Your task to perform on an android device: show emergency info Image 0: 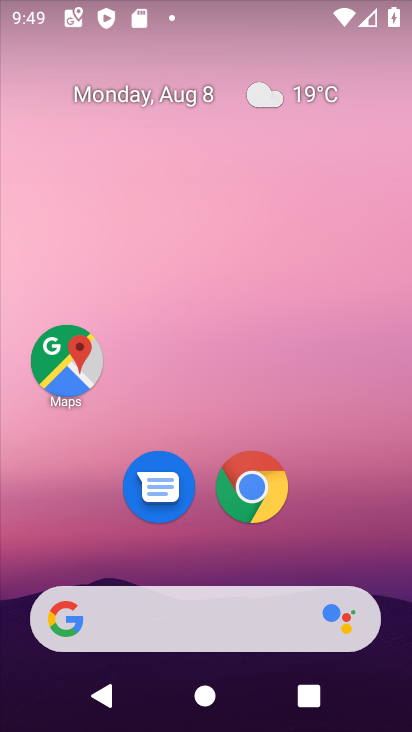
Step 0: drag from (205, 559) to (210, 218)
Your task to perform on an android device: show emergency info Image 1: 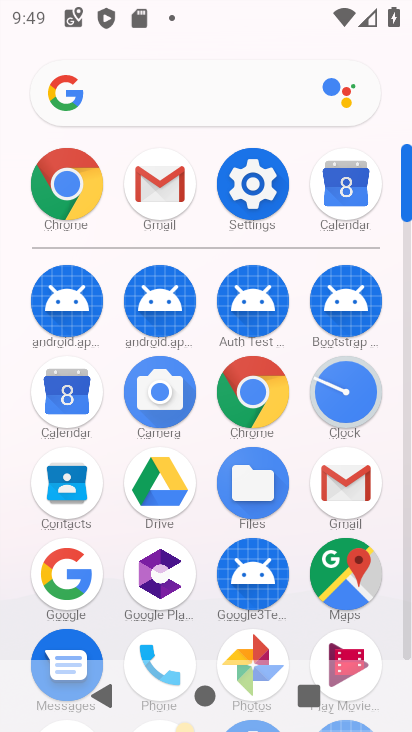
Step 1: click (260, 177)
Your task to perform on an android device: show emergency info Image 2: 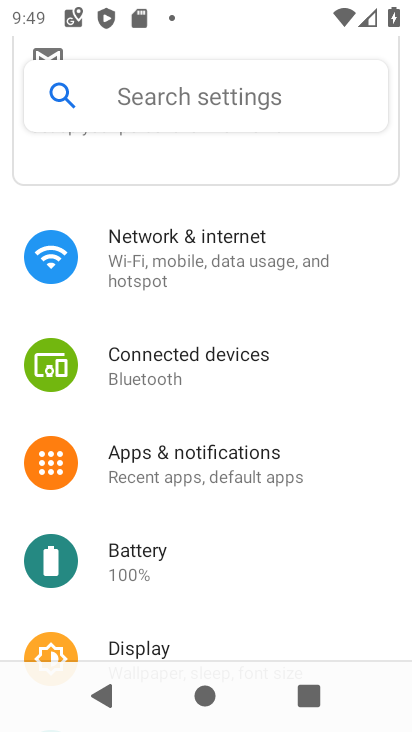
Step 2: drag from (150, 593) to (150, 314)
Your task to perform on an android device: show emergency info Image 3: 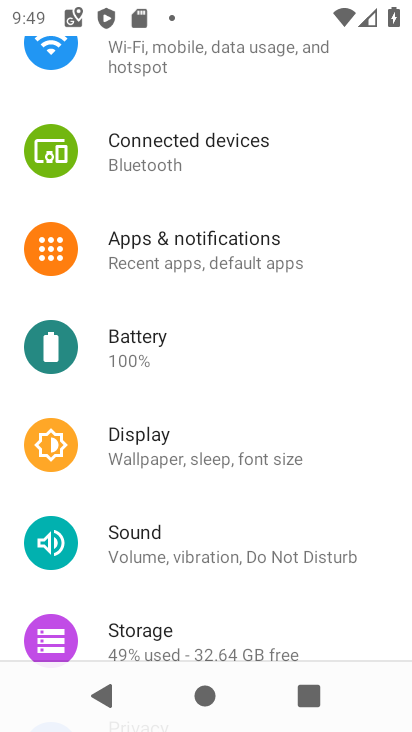
Step 3: drag from (148, 619) to (147, 252)
Your task to perform on an android device: show emergency info Image 4: 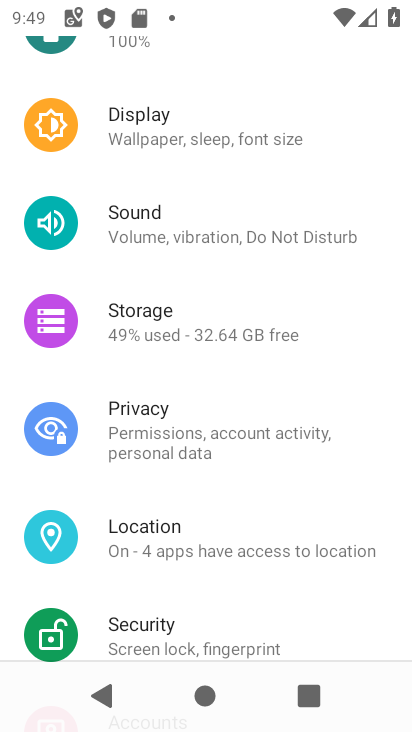
Step 4: drag from (141, 606) to (143, 304)
Your task to perform on an android device: show emergency info Image 5: 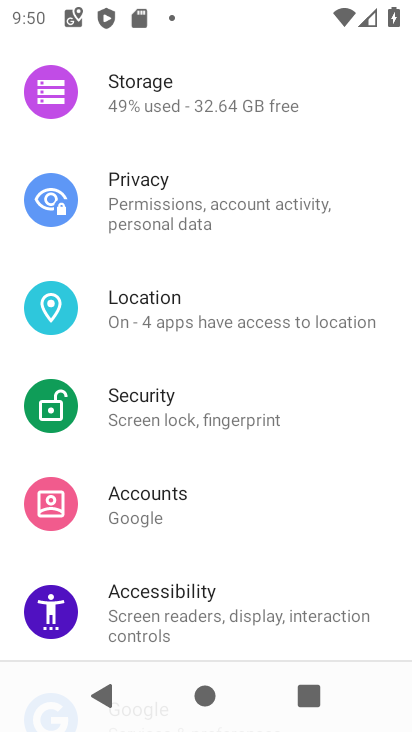
Step 5: drag from (151, 631) to (150, 270)
Your task to perform on an android device: show emergency info Image 6: 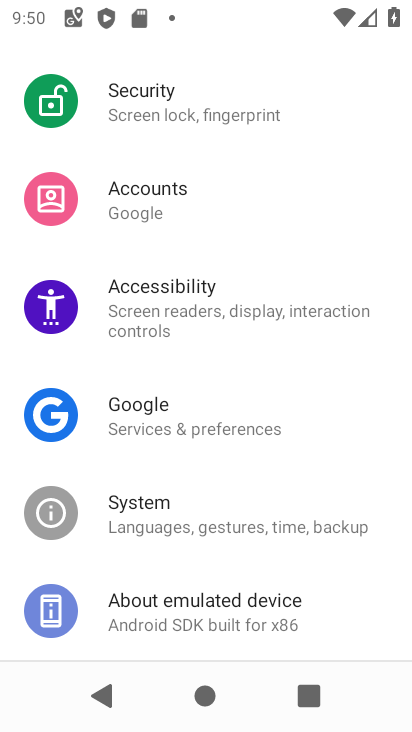
Step 6: drag from (176, 554) to (197, 337)
Your task to perform on an android device: show emergency info Image 7: 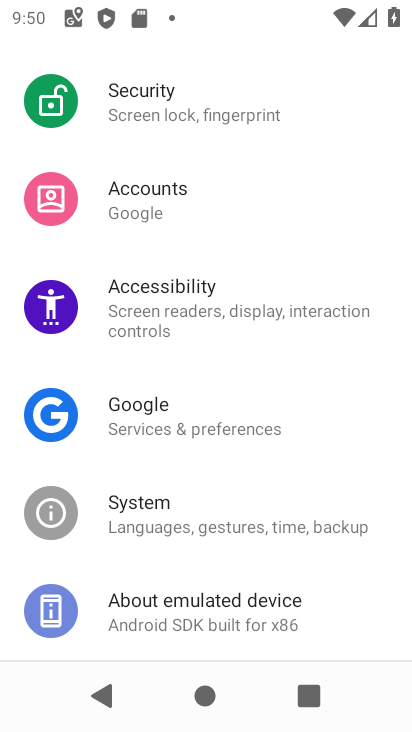
Step 7: click (184, 593)
Your task to perform on an android device: show emergency info Image 8: 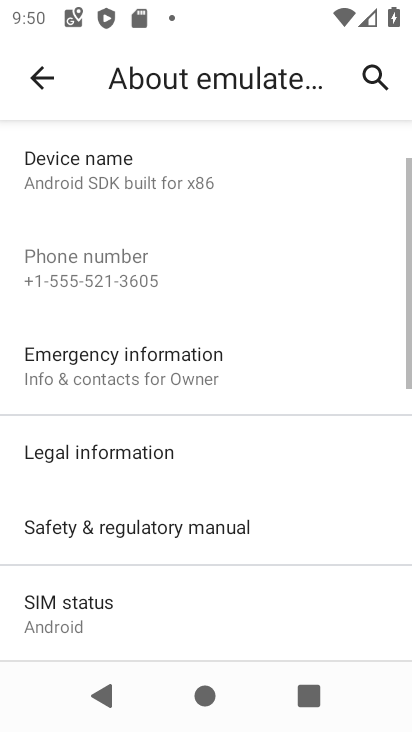
Step 8: click (113, 355)
Your task to perform on an android device: show emergency info Image 9: 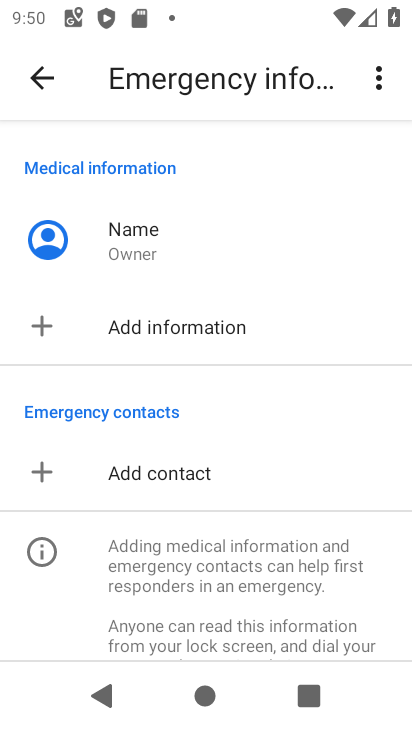
Step 9: task complete